Your task to perform on an android device: Open network settings Image 0: 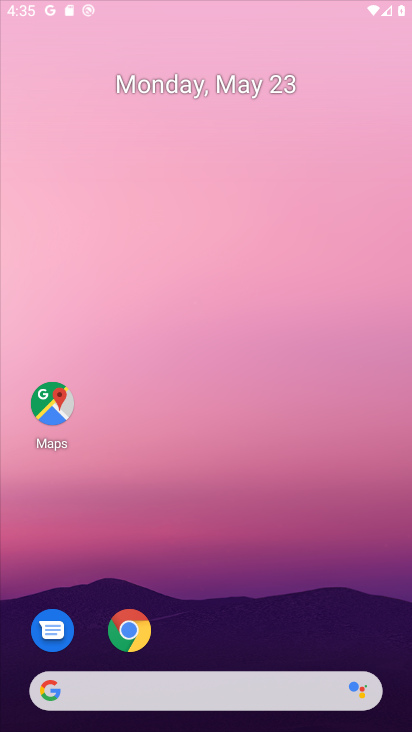
Step 0: drag from (234, 145) to (239, 103)
Your task to perform on an android device: Open network settings Image 1: 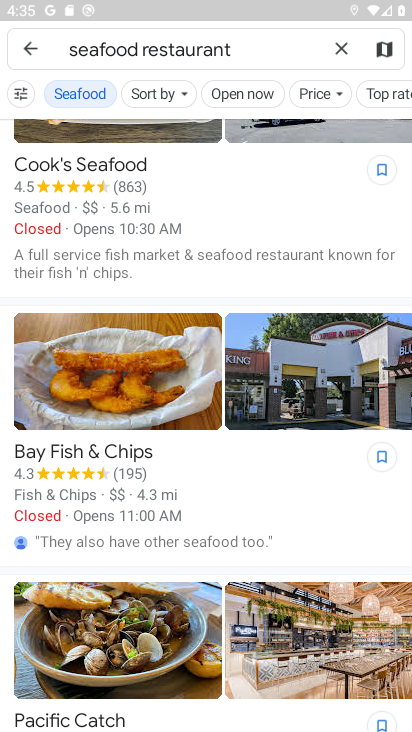
Step 1: press home button
Your task to perform on an android device: Open network settings Image 2: 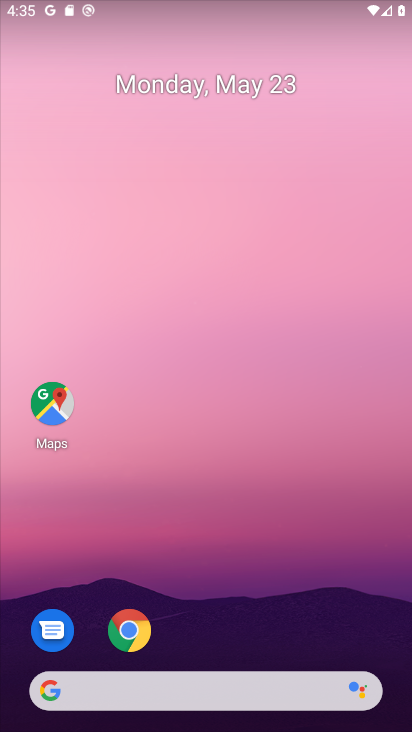
Step 2: drag from (204, 650) to (251, 46)
Your task to perform on an android device: Open network settings Image 3: 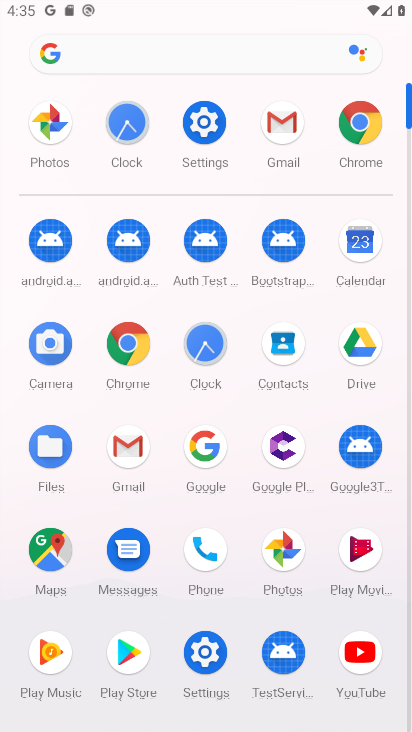
Step 3: click (197, 117)
Your task to perform on an android device: Open network settings Image 4: 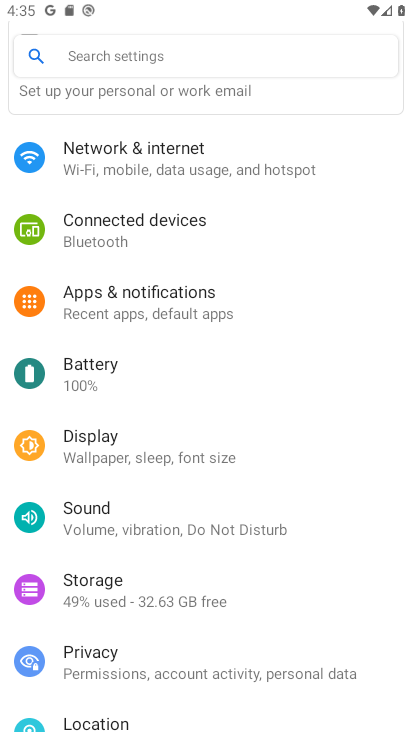
Step 4: click (170, 164)
Your task to perform on an android device: Open network settings Image 5: 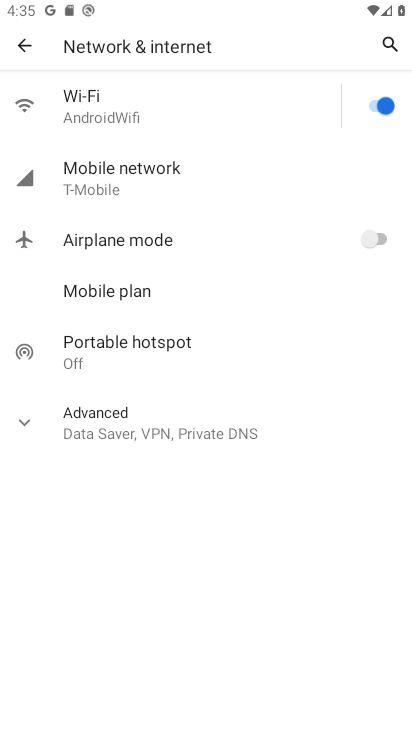
Step 5: click (31, 419)
Your task to perform on an android device: Open network settings Image 6: 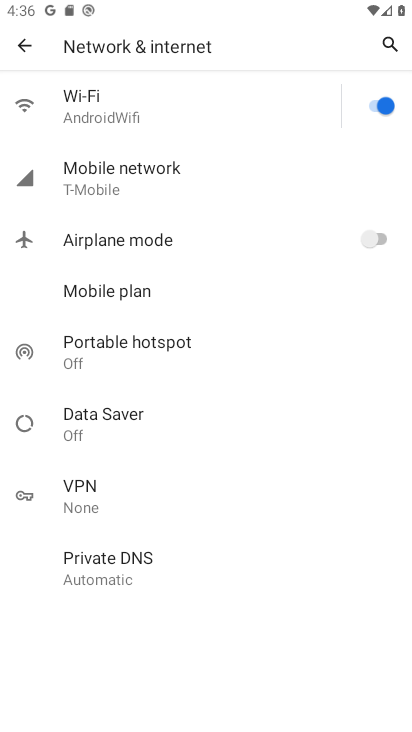
Step 6: task complete